Your task to perform on an android device: Open calendar and show me the fourth week of next month Image 0: 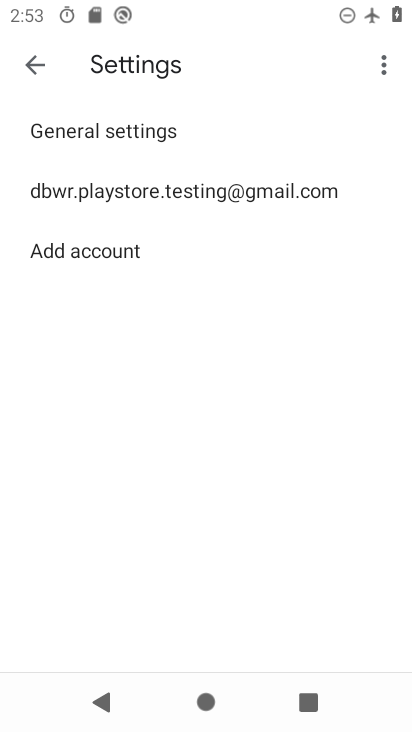
Step 0: press home button
Your task to perform on an android device: Open calendar and show me the fourth week of next month Image 1: 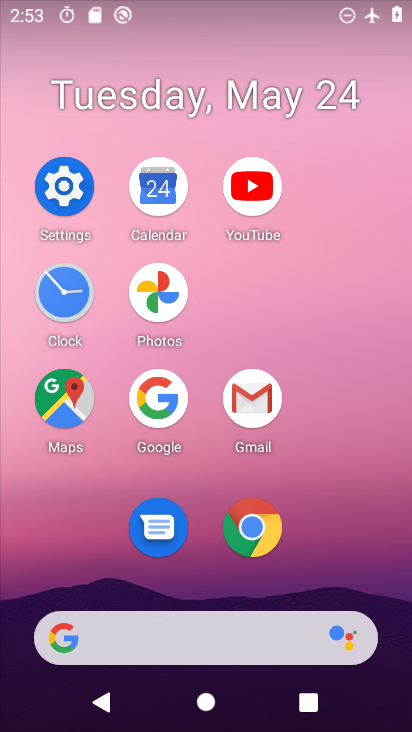
Step 1: click (158, 196)
Your task to perform on an android device: Open calendar and show me the fourth week of next month Image 2: 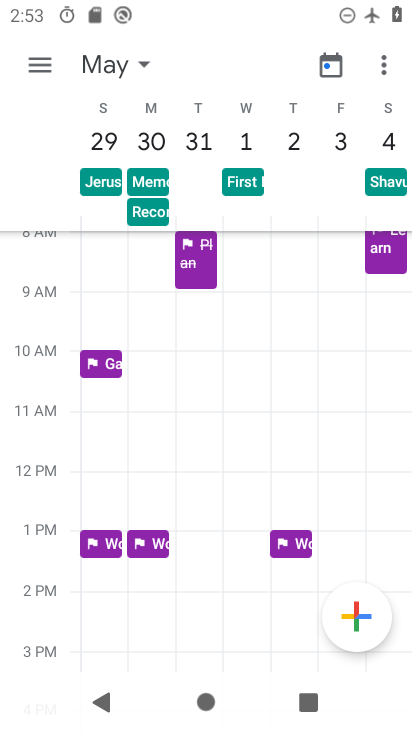
Step 2: task complete